Your task to perform on an android device: Add corsair k70 to the cart on amazon Image 0: 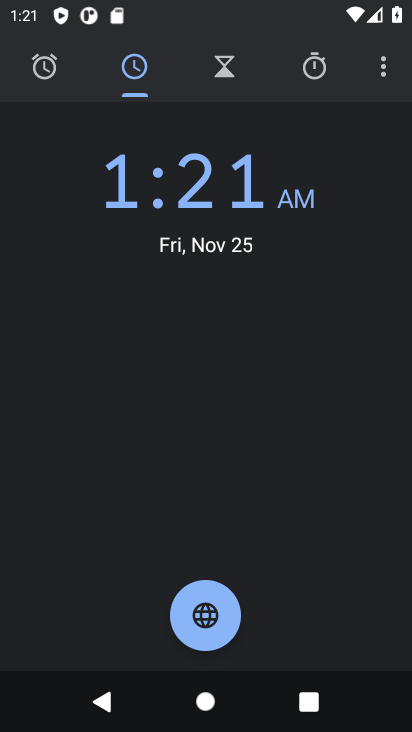
Step 0: press home button
Your task to perform on an android device: Add corsair k70 to the cart on amazon Image 1: 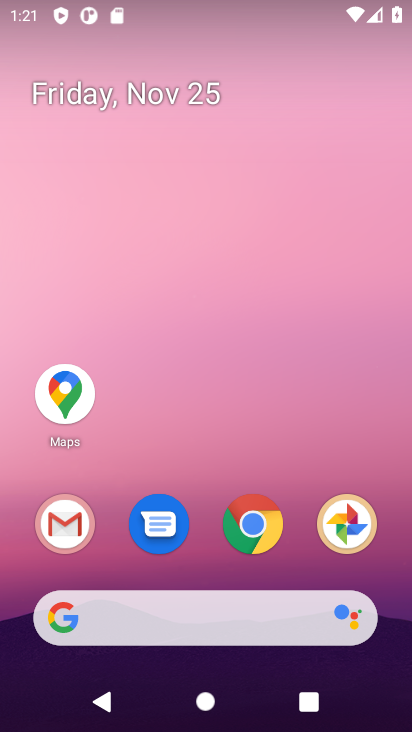
Step 1: click (256, 531)
Your task to perform on an android device: Add corsair k70 to the cart on amazon Image 2: 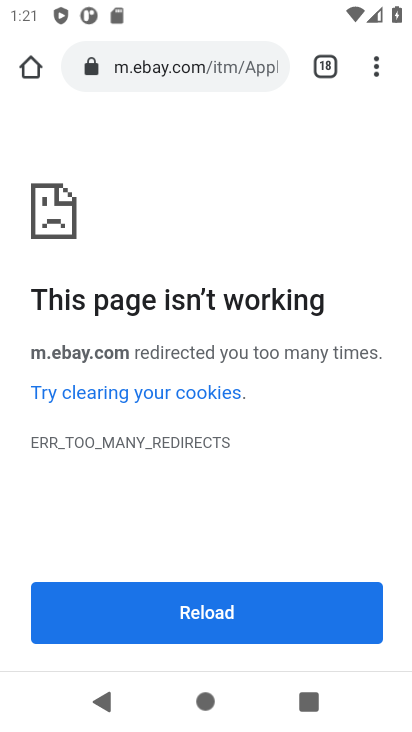
Step 2: click (175, 56)
Your task to perform on an android device: Add corsair k70 to the cart on amazon Image 3: 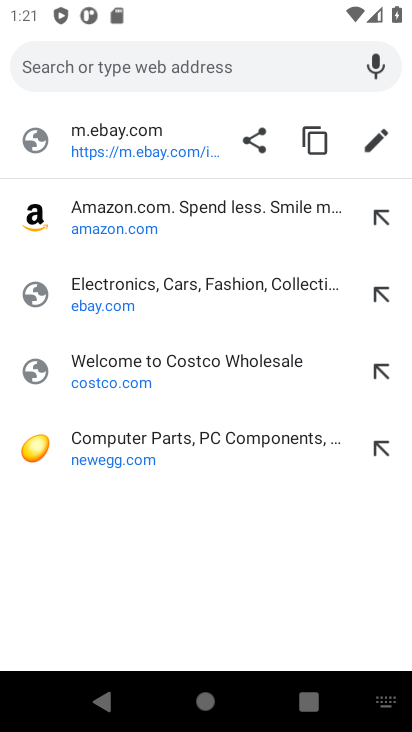
Step 3: click (81, 213)
Your task to perform on an android device: Add corsair k70 to the cart on amazon Image 4: 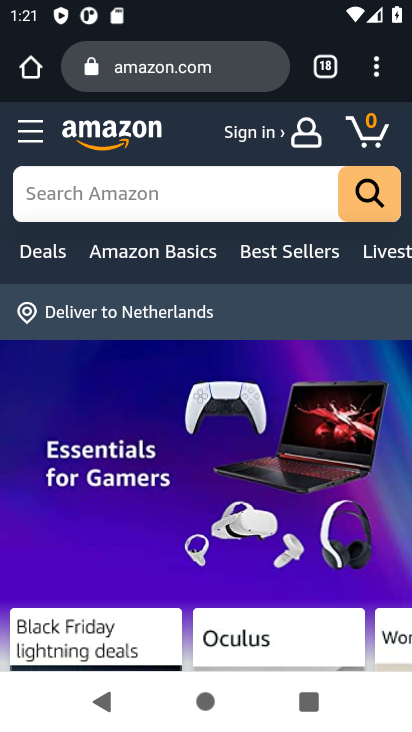
Step 4: click (123, 185)
Your task to perform on an android device: Add corsair k70 to the cart on amazon Image 5: 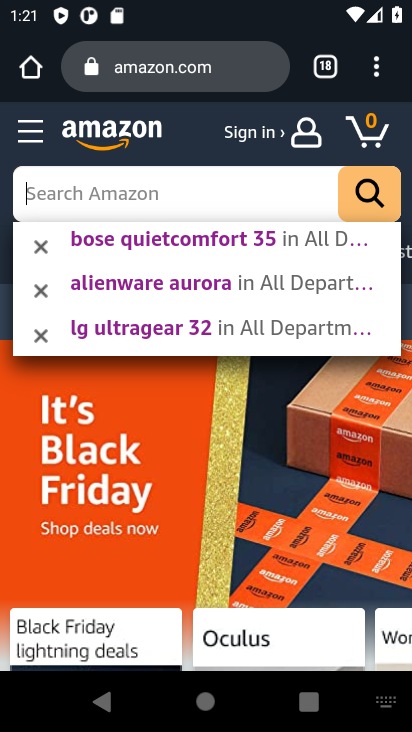
Step 5: type "corsair k70 "
Your task to perform on an android device: Add corsair k70 to the cart on amazon Image 6: 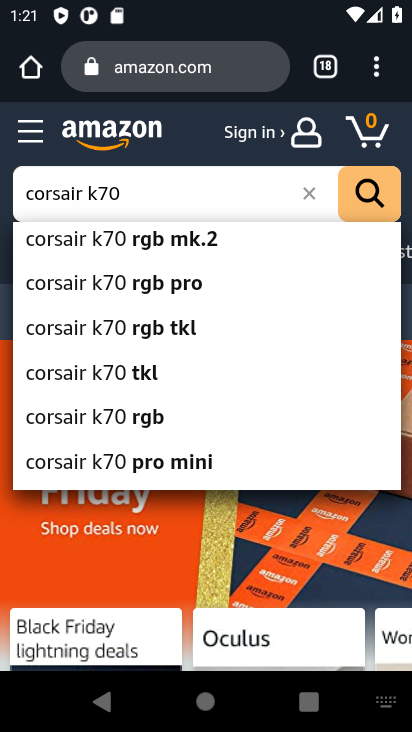
Step 6: click (374, 194)
Your task to perform on an android device: Add corsair k70 to the cart on amazon Image 7: 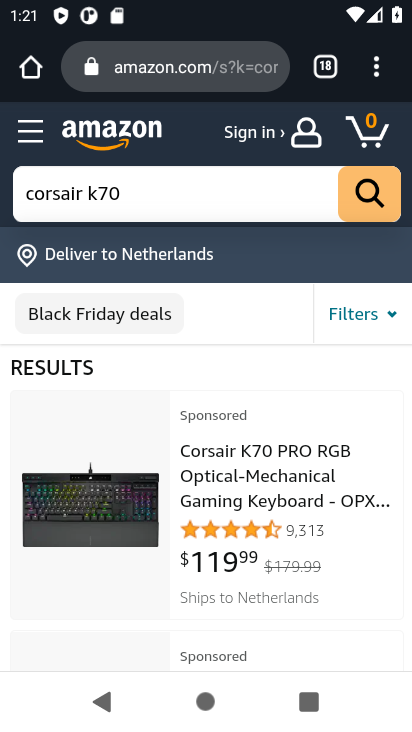
Step 7: drag from (165, 521) to (180, 365)
Your task to perform on an android device: Add corsair k70 to the cart on amazon Image 8: 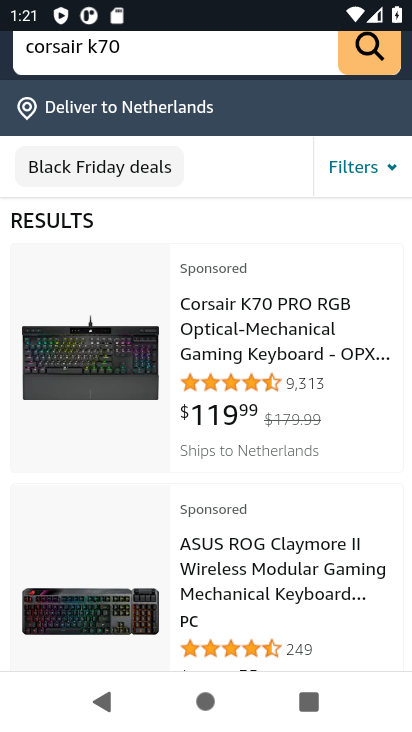
Step 8: click (117, 387)
Your task to perform on an android device: Add corsair k70 to the cart on amazon Image 9: 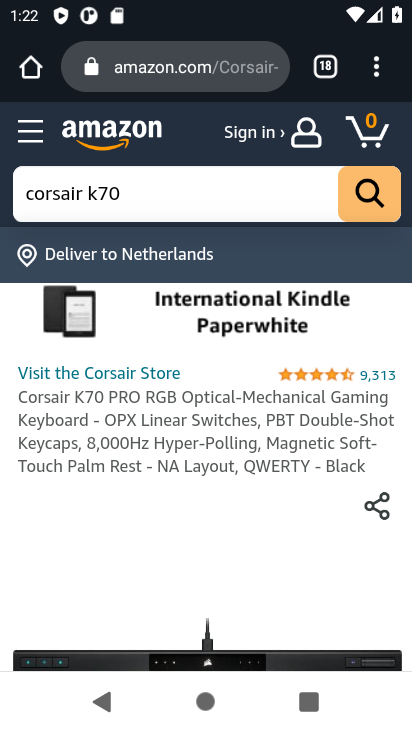
Step 9: drag from (186, 525) to (189, 250)
Your task to perform on an android device: Add corsair k70 to the cart on amazon Image 10: 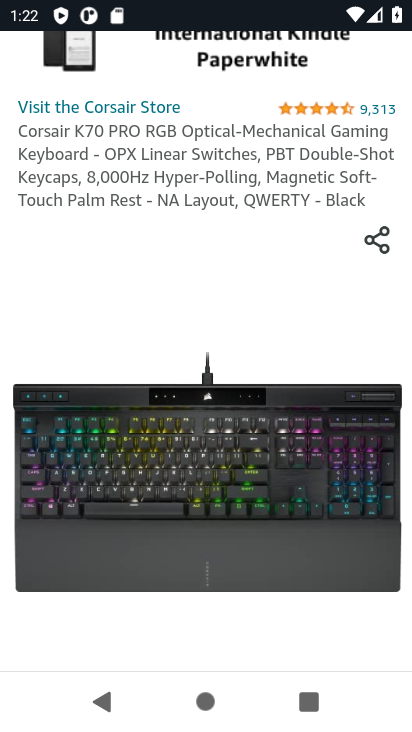
Step 10: drag from (172, 480) to (190, 212)
Your task to perform on an android device: Add corsair k70 to the cart on amazon Image 11: 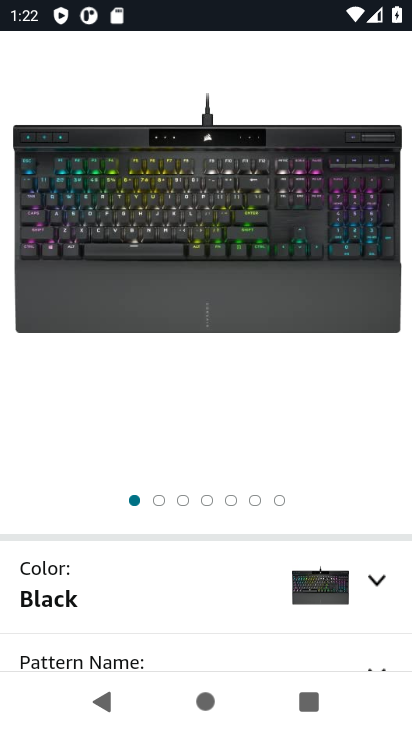
Step 11: drag from (189, 454) to (199, 207)
Your task to perform on an android device: Add corsair k70 to the cart on amazon Image 12: 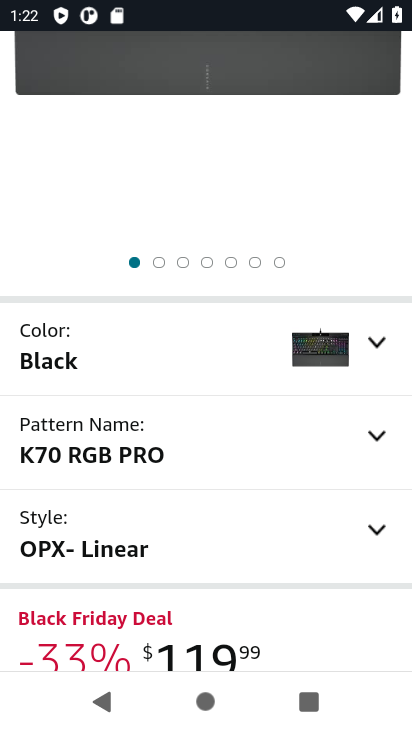
Step 12: drag from (187, 485) to (192, 179)
Your task to perform on an android device: Add corsair k70 to the cart on amazon Image 13: 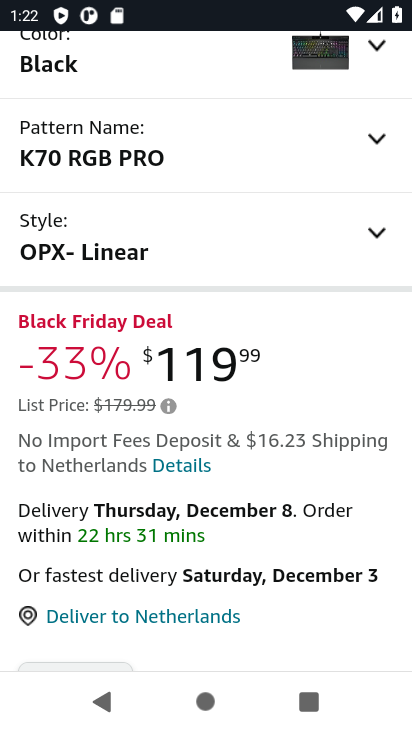
Step 13: drag from (171, 472) to (186, 176)
Your task to perform on an android device: Add corsair k70 to the cart on amazon Image 14: 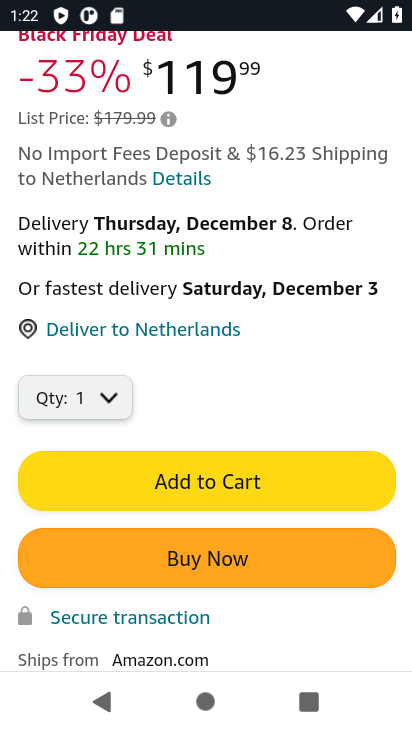
Step 14: click (189, 480)
Your task to perform on an android device: Add corsair k70 to the cart on amazon Image 15: 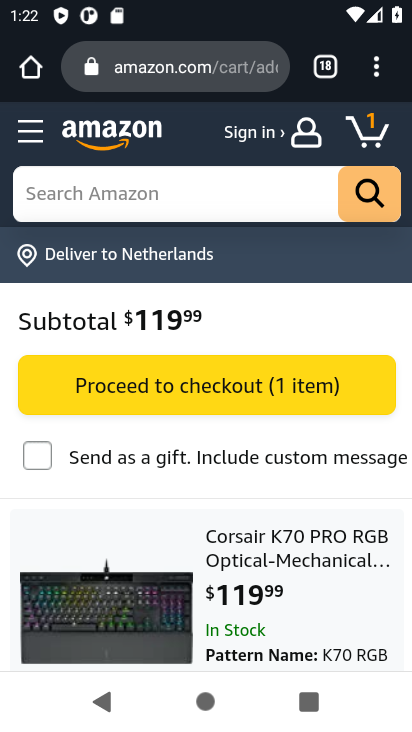
Step 15: task complete